Your task to perform on an android device: turn off wifi Image 0: 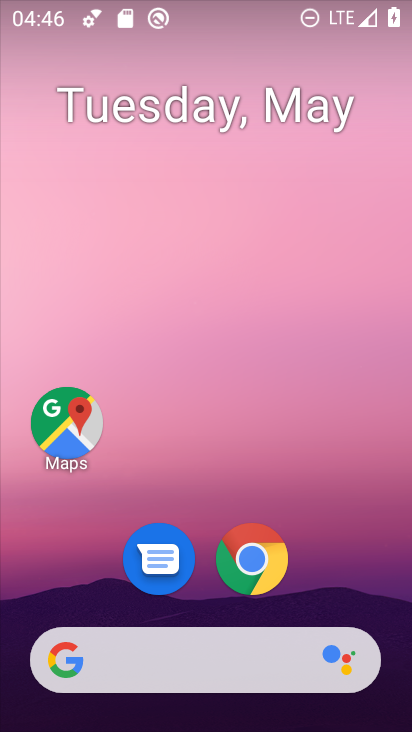
Step 0: drag from (222, 723) to (223, 158)
Your task to perform on an android device: turn off wifi Image 1: 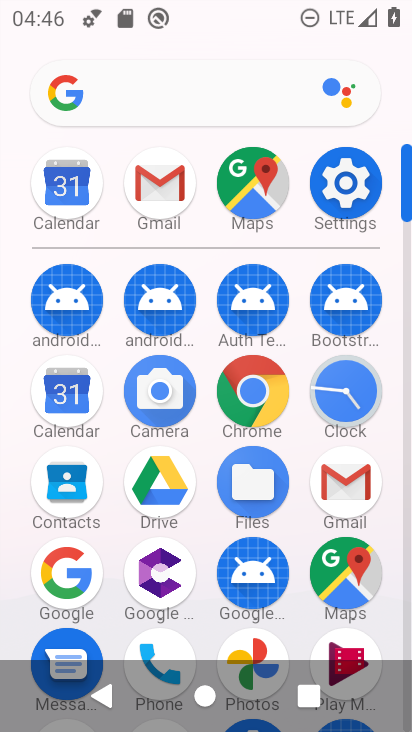
Step 1: click (352, 183)
Your task to perform on an android device: turn off wifi Image 2: 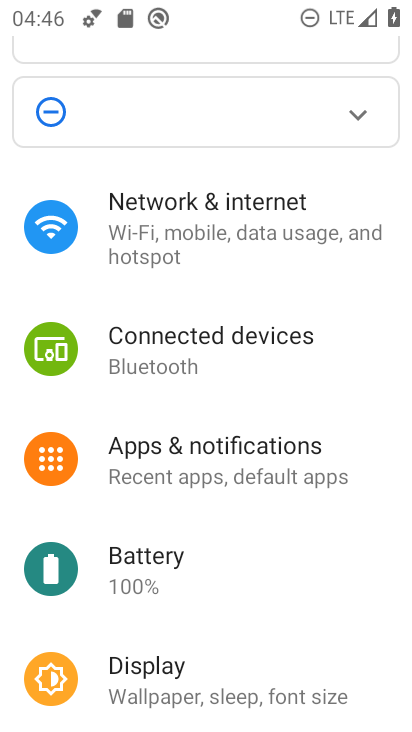
Step 2: click (168, 211)
Your task to perform on an android device: turn off wifi Image 3: 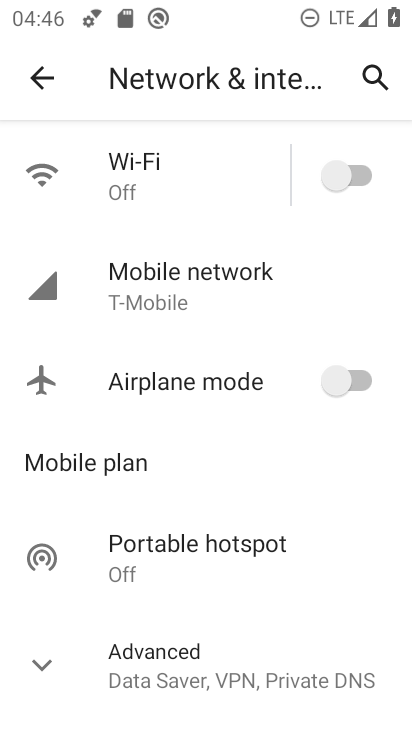
Step 3: task complete